Your task to perform on an android device: Open Google Maps and go to "Timeline" Image 0: 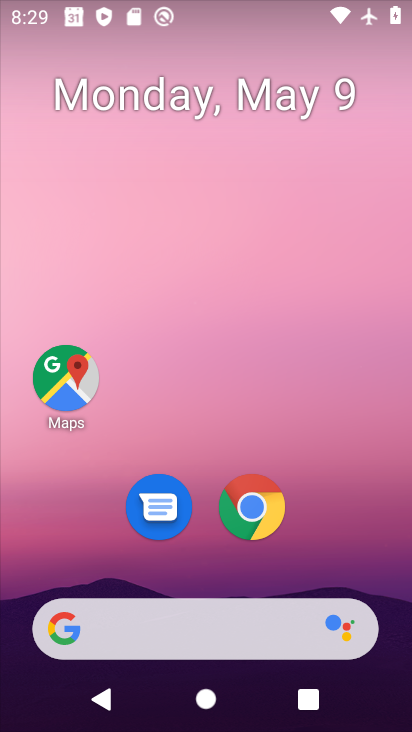
Step 0: drag from (229, 579) to (233, 14)
Your task to perform on an android device: Open Google Maps and go to "Timeline" Image 1: 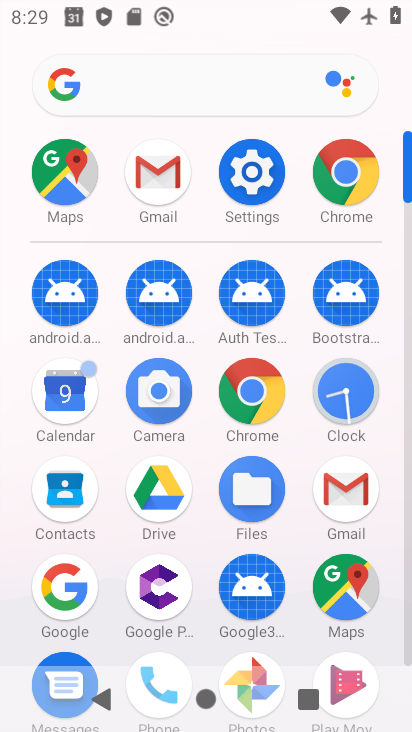
Step 1: click (345, 601)
Your task to perform on an android device: Open Google Maps and go to "Timeline" Image 2: 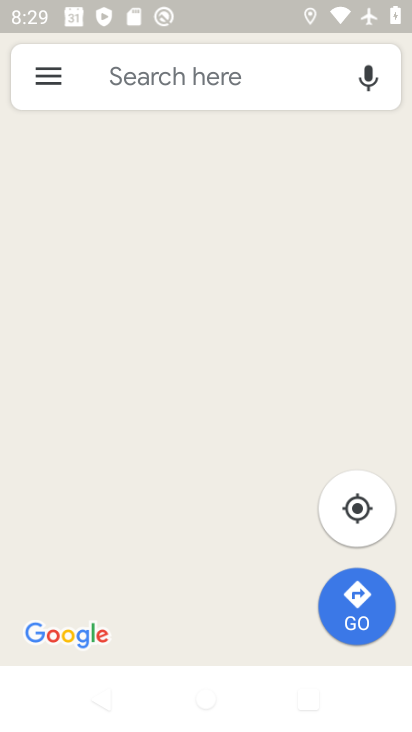
Step 2: click (27, 63)
Your task to perform on an android device: Open Google Maps and go to "Timeline" Image 3: 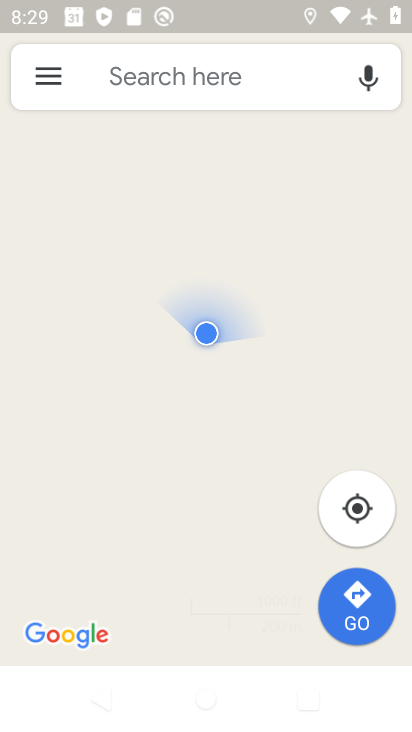
Step 3: click (47, 74)
Your task to perform on an android device: Open Google Maps and go to "Timeline" Image 4: 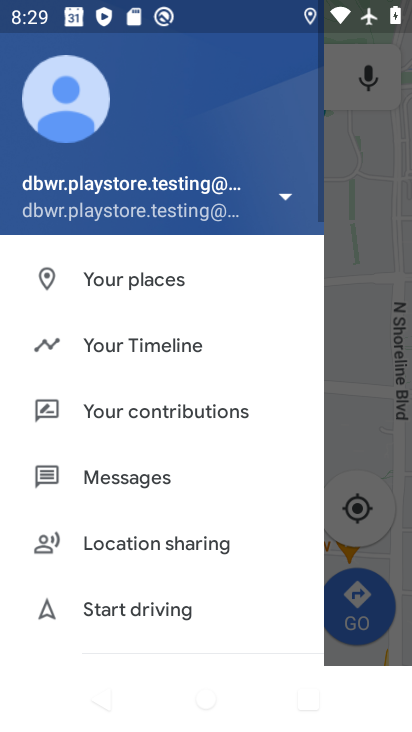
Step 4: click (120, 346)
Your task to perform on an android device: Open Google Maps and go to "Timeline" Image 5: 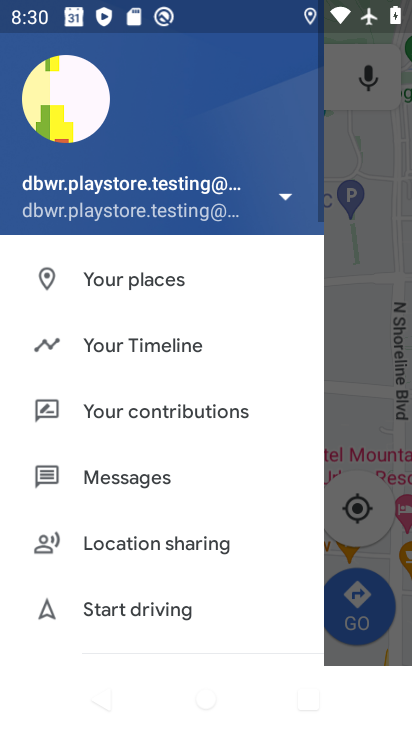
Step 5: click (128, 336)
Your task to perform on an android device: Open Google Maps and go to "Timeline" Image 6: 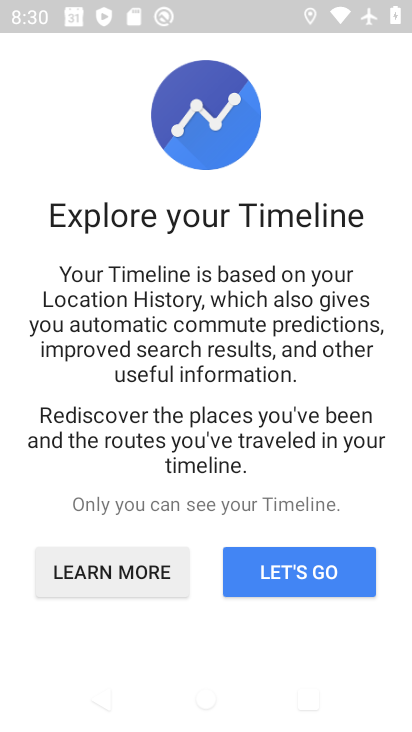
Step 6: click (338, 569)
Your task to perform on an android device: Open Google Maps and go to "Timeline" Image 7: 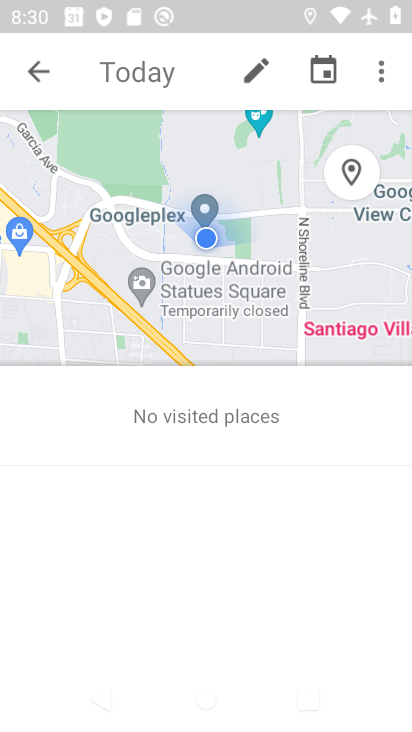
Step 7: task complete